Your task to perform on an android device: turn off notifications settings in the gmail app Image 0: 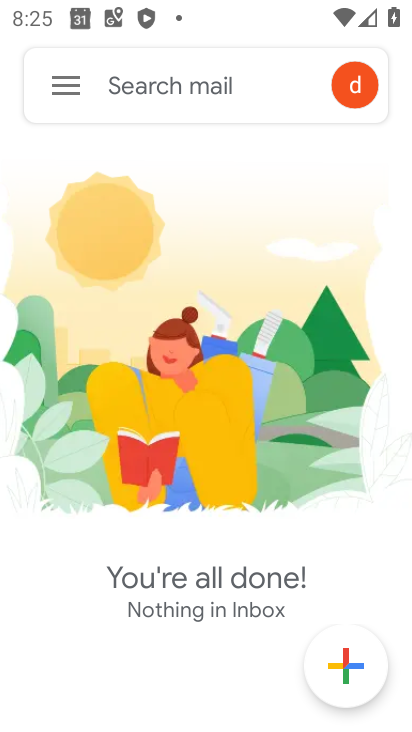
Step 0: press back button
Your task to perform on an android device: turn off notifications settings in the gmail app Image 1: 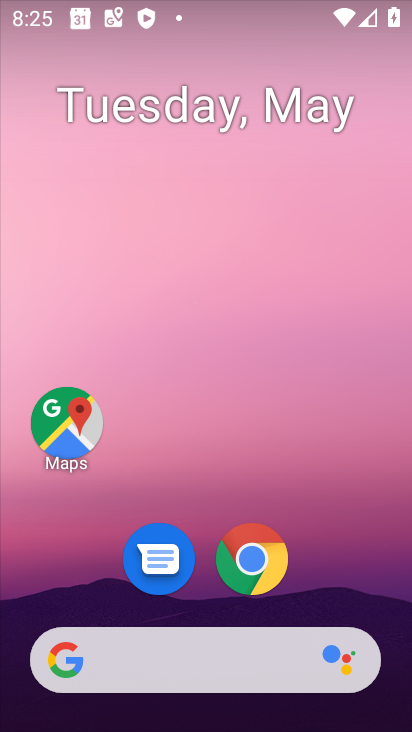
Step 1: drag from (211, 580) to (309, 2)
Your task to perform on an android device: turn off notifications settings in the gmail app Image 2: 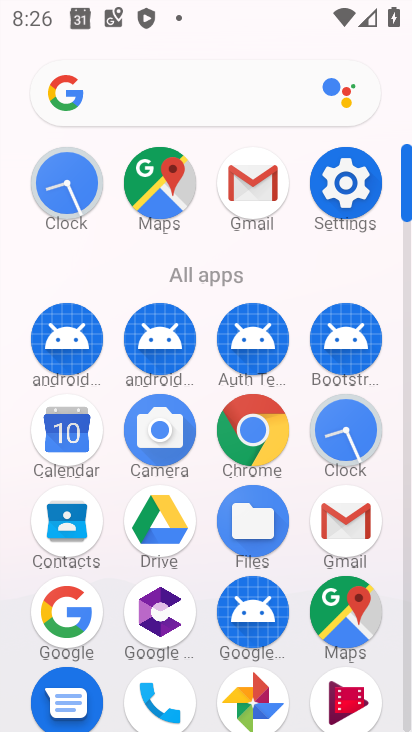
Step 2: click (239, 169)
Your task to perform on an android device: turn off notifications settings in the gmail app Image 3: 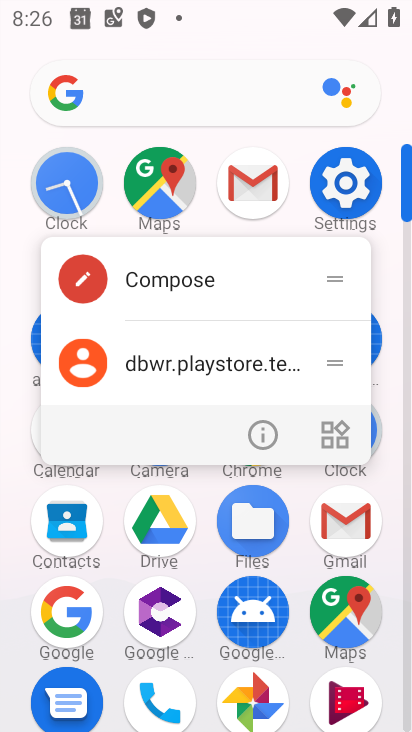
Step 3: click (267, 440)
Your task to perform on an android device: turn off notifications settings in the gmail app Image 4: 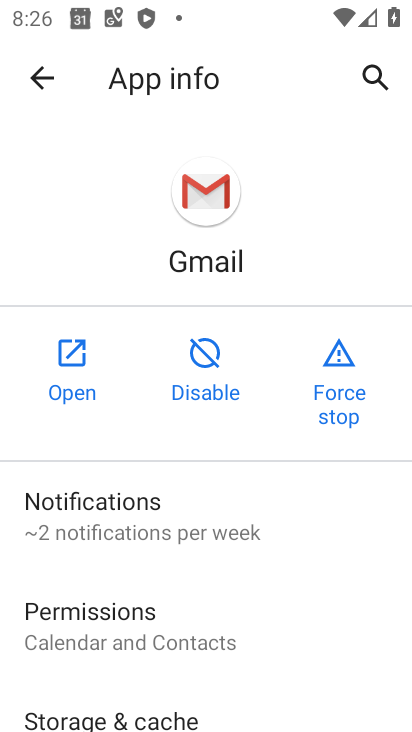
Step 4: click (104, 517)
Your task to perform on an android device: turn off notifications settings in the gmail app Image 5: 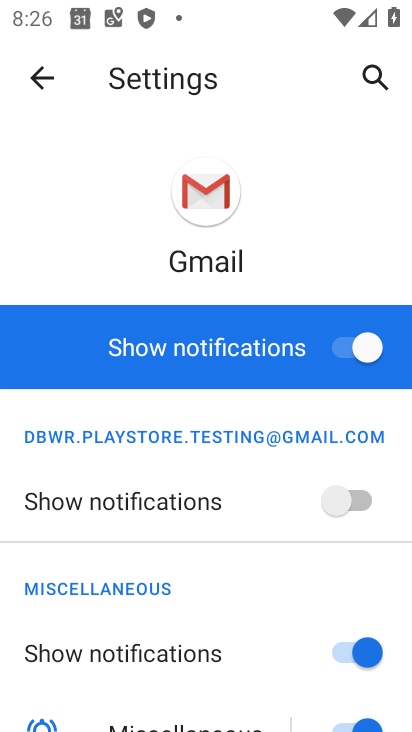
Step 5: click (372, 341)
Your task to perform on an android device: turn off notifications settings in the gmail app Image 6: 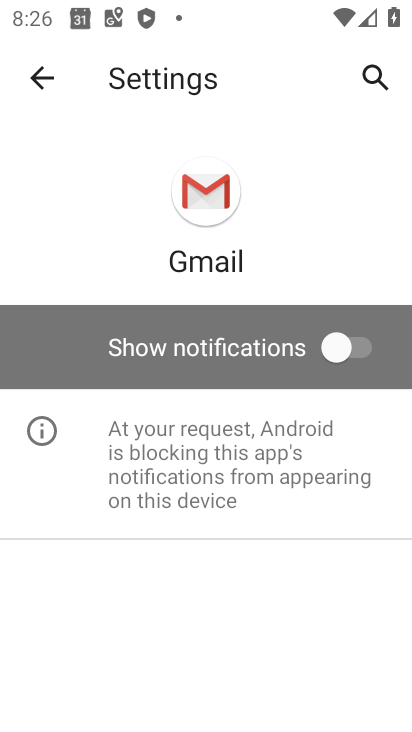
Step 6: task complete